Your task to perform on an android device: add a contact in the contacts app Image 0: 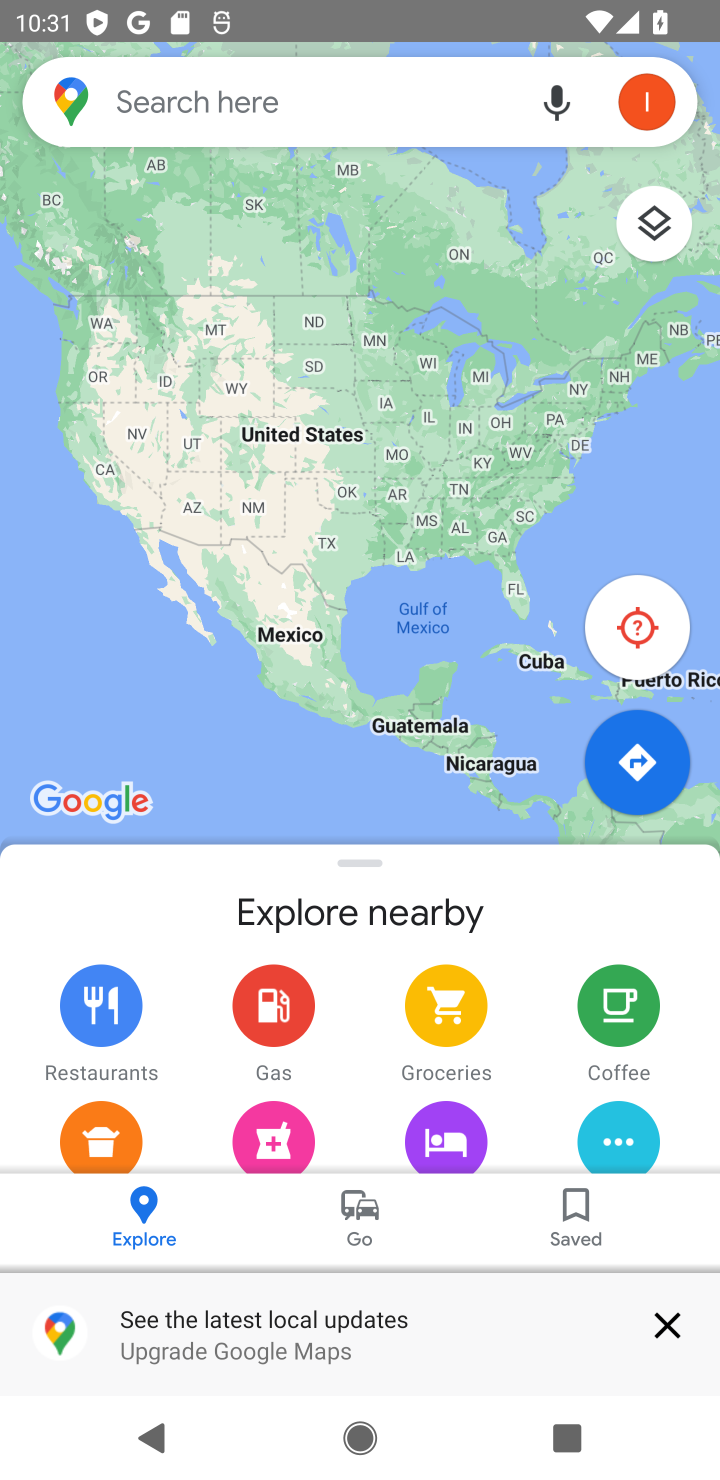
Step 0: press home button
Your task to perform on an android device: add a contact in the contacts app Image 1: 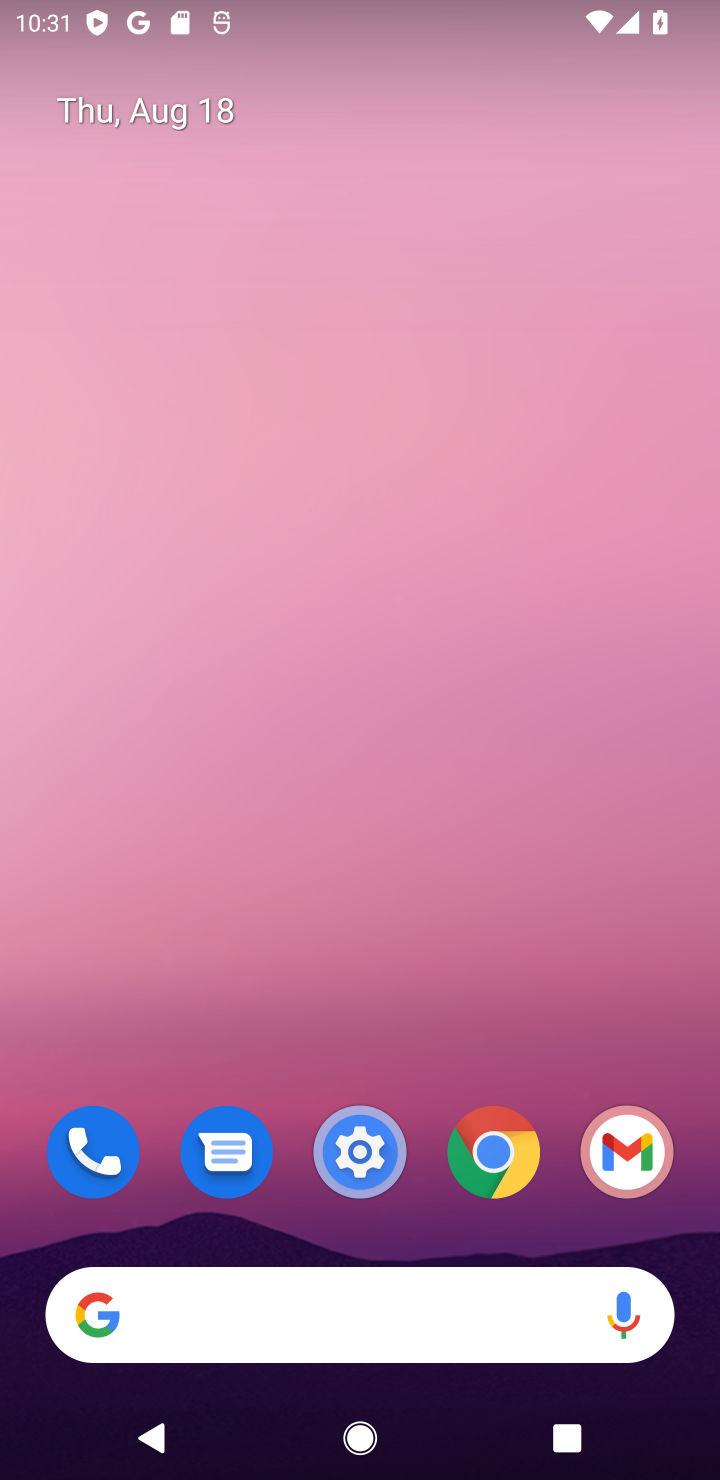
Step 1: drag from (487, 1025) to (490, 3)
Your task to perform on an android device: add a contact in the contacts app Image 2: 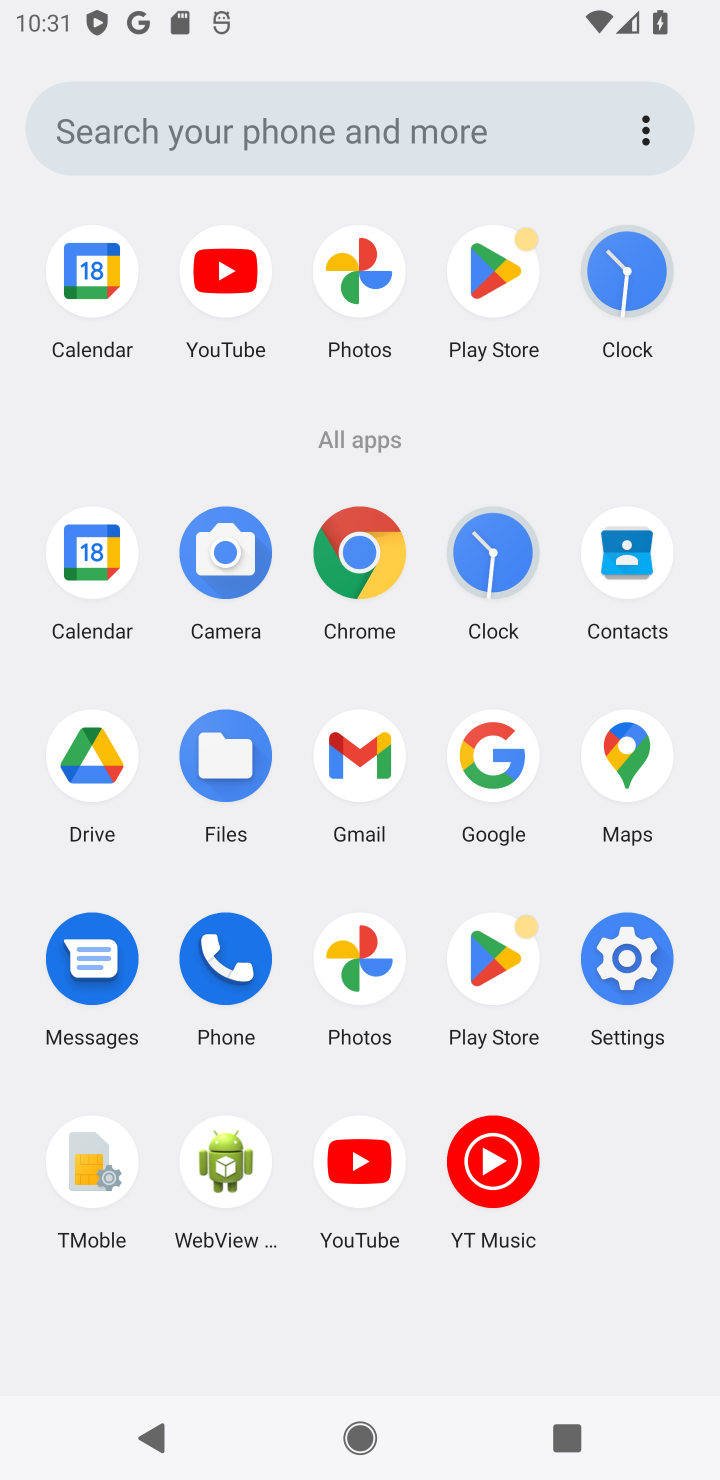
Step 2: click (619, 553)
Your task to perform on an android device: add a contact in the contacts app Image 3: 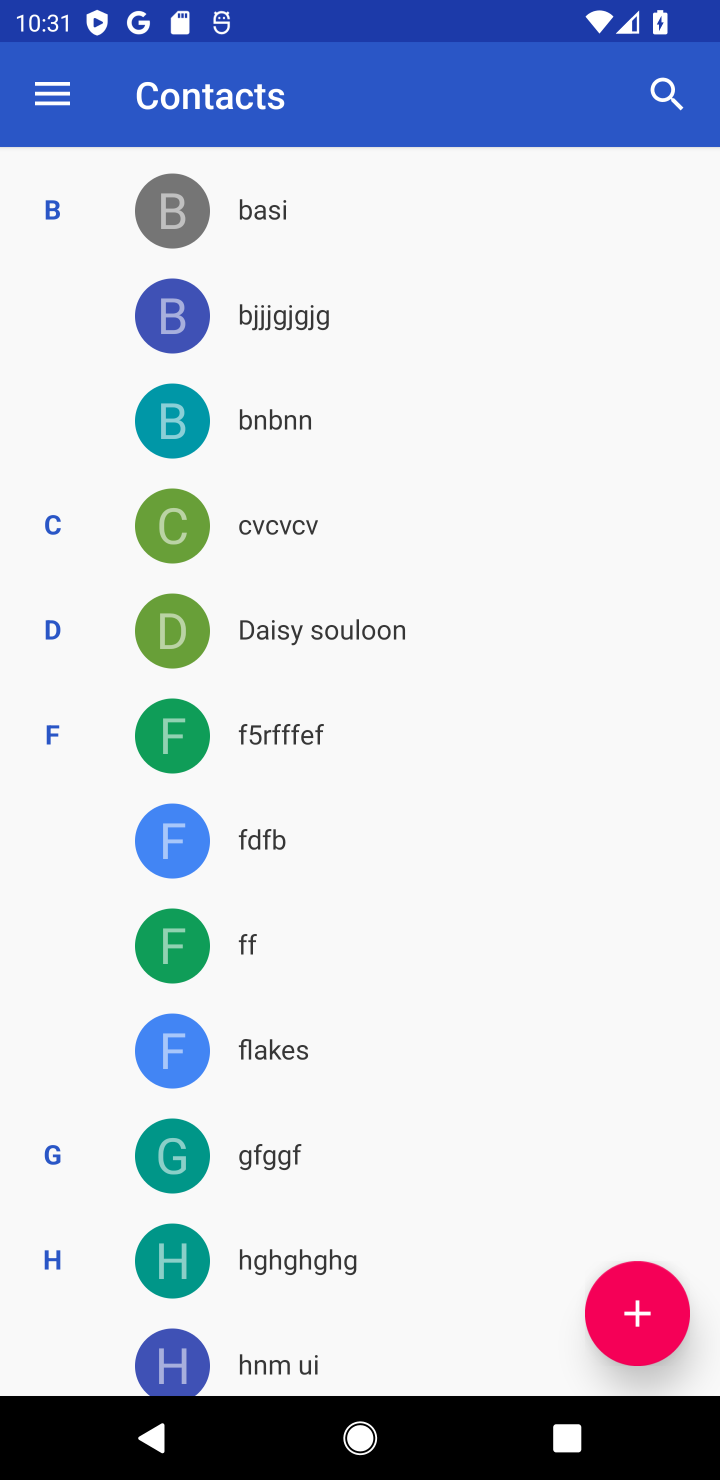
Step 3: click (639, 1304)
Your task to perform on an android device: add a contact in the contacts app Image 4: 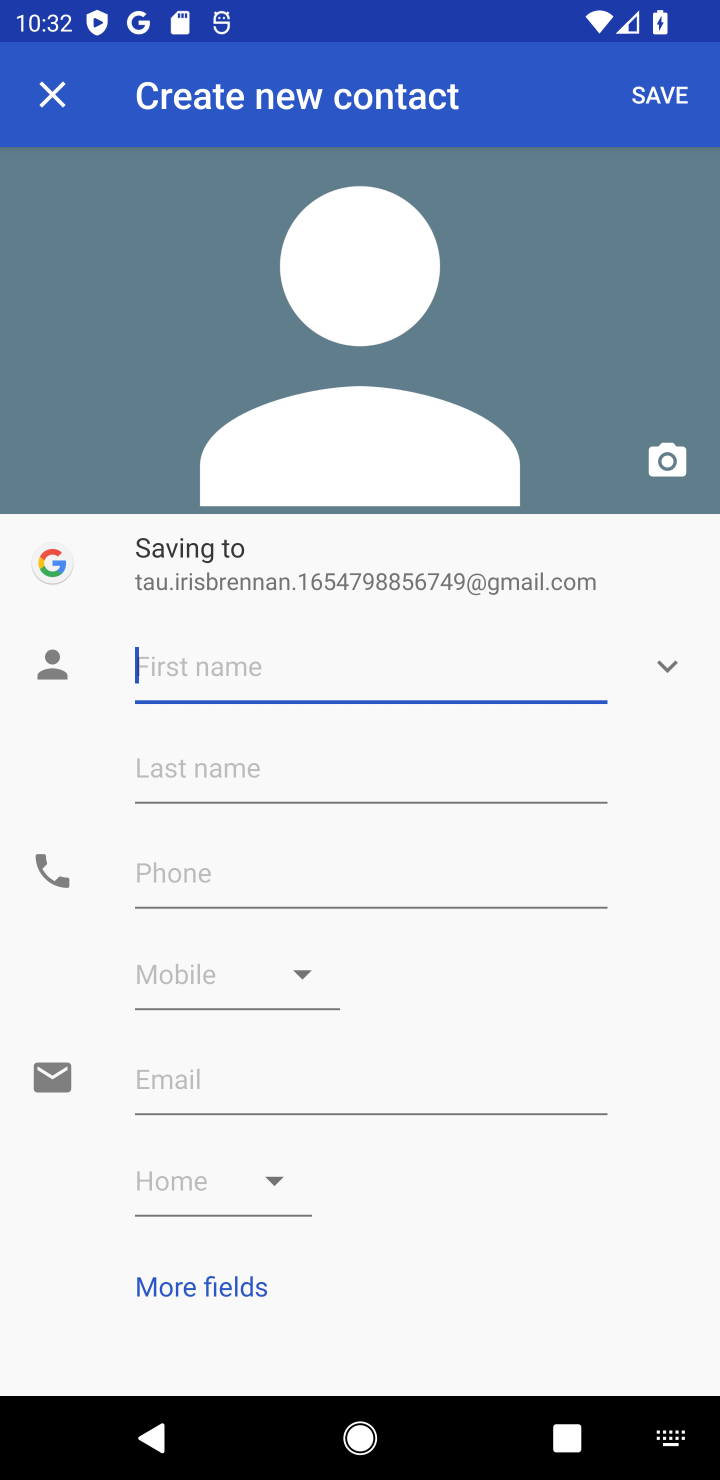
Step 4: type "Aaadidev Mahadev"
Your task to perform on an android device: add a contact in the contacts app Image 5: 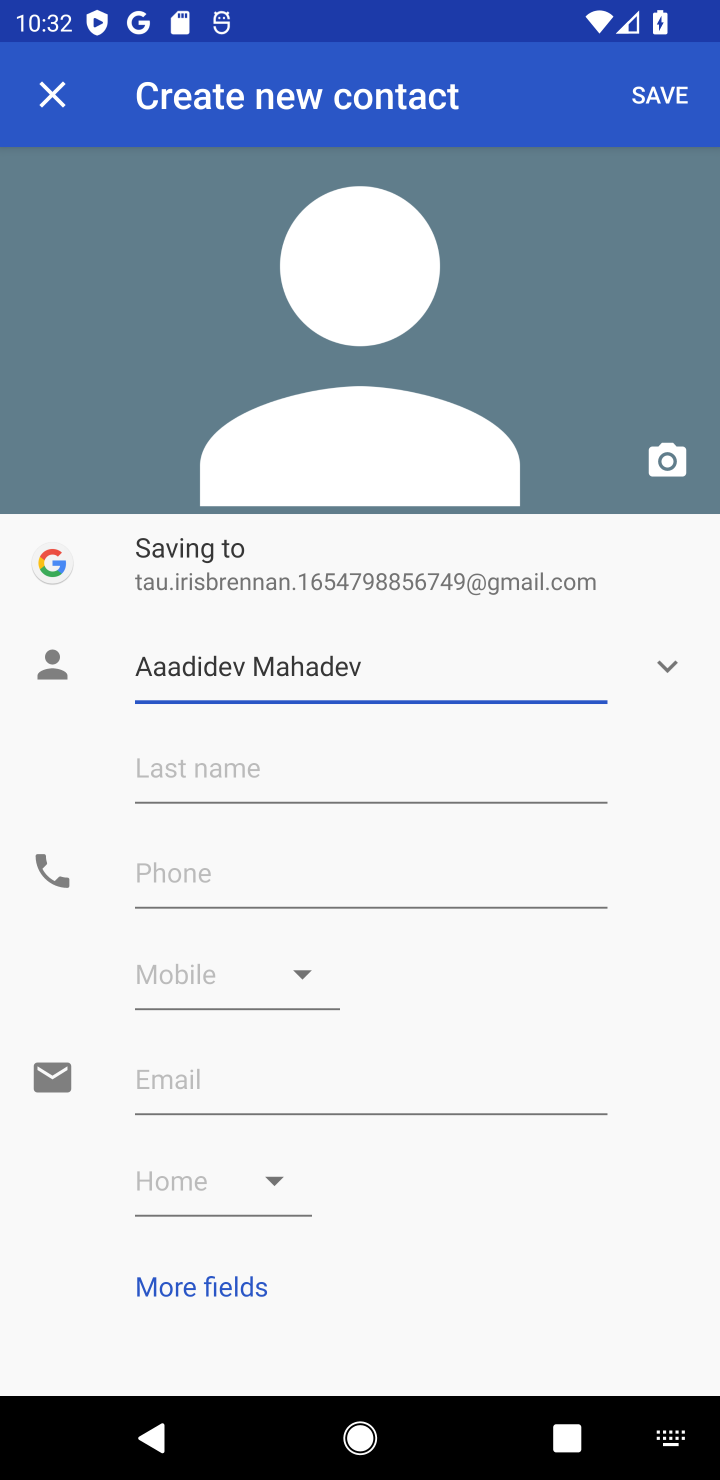
Step 5: click (356, 893)
Your task to perform on an android device: add a contact in the contacts app Image 6: 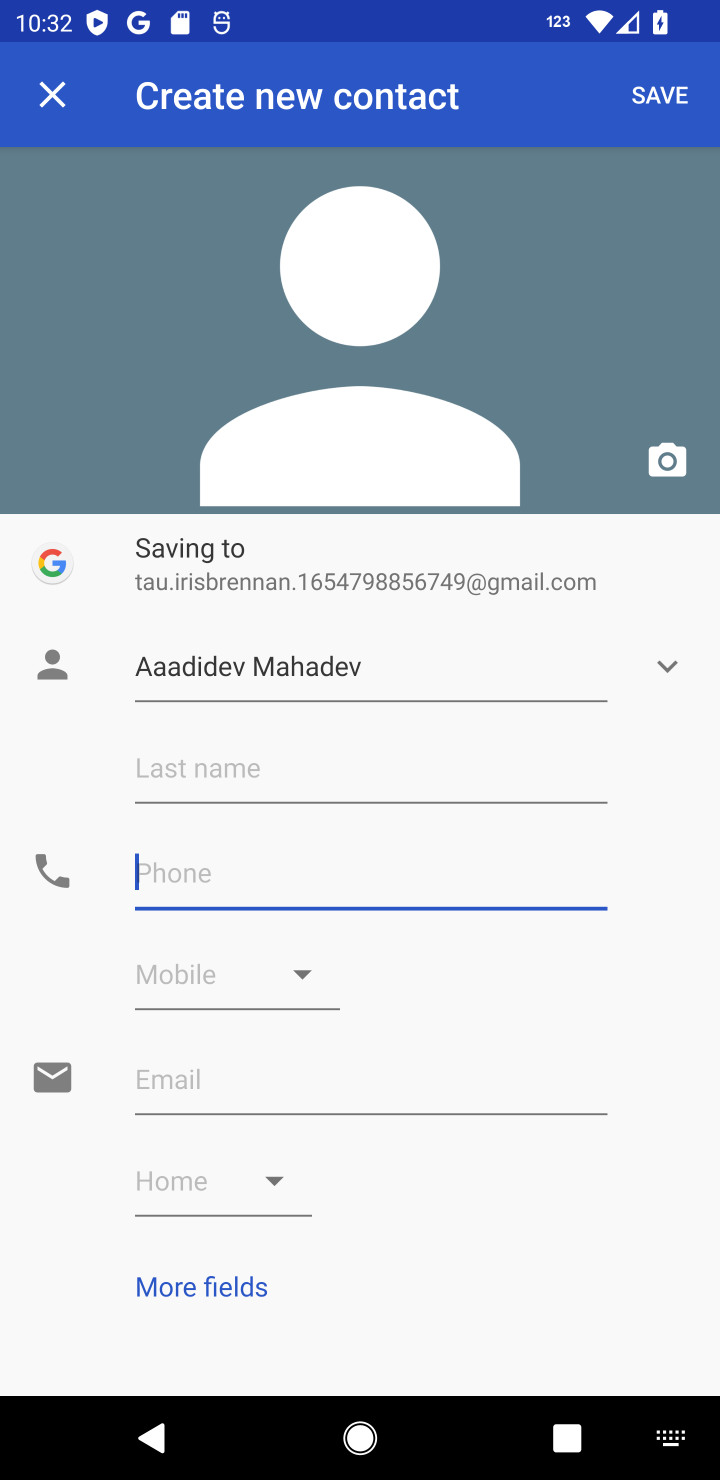
Step 6: type "+919999999999"
Your task to perform on an android device: add a contact in the contacts app Image 7: 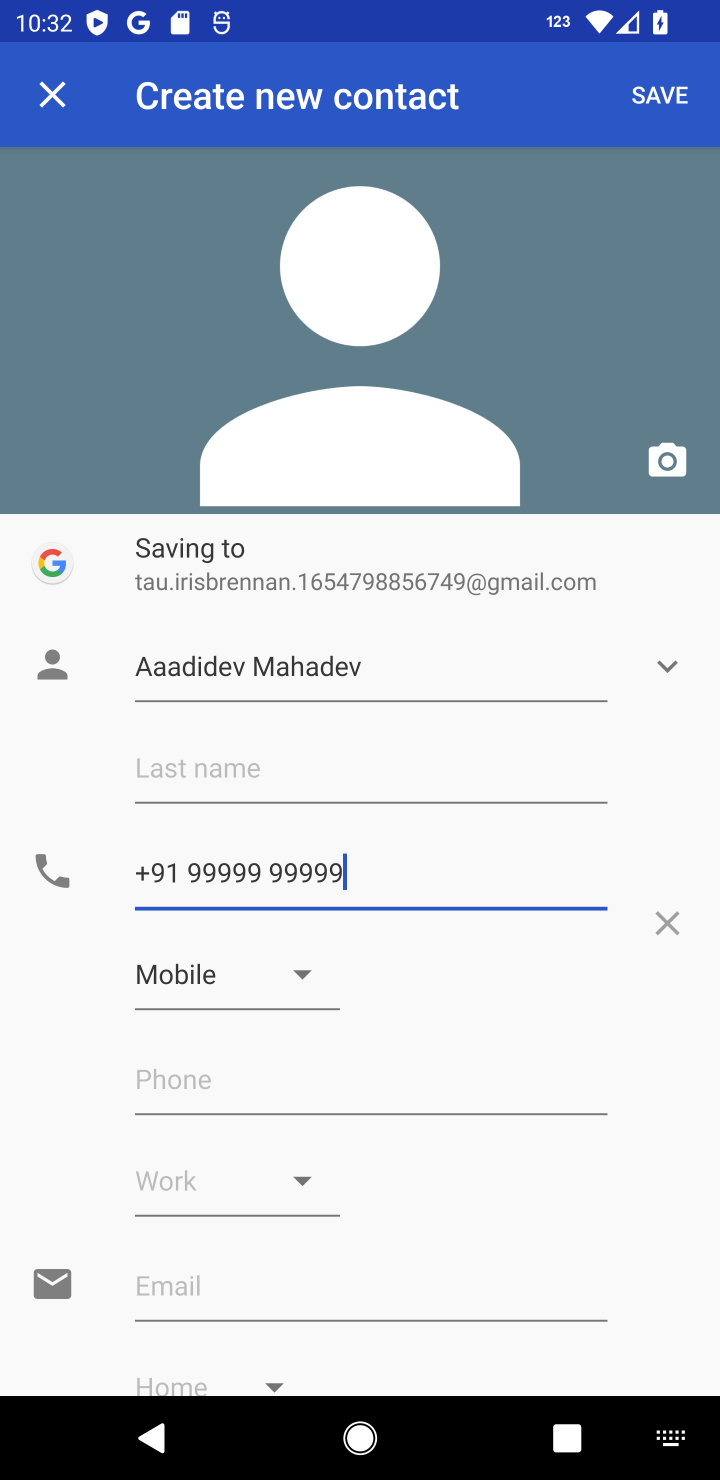
Step 7: click (668, 96)
Your task to perform on an android device: add a contact in the contacts app Image 8: 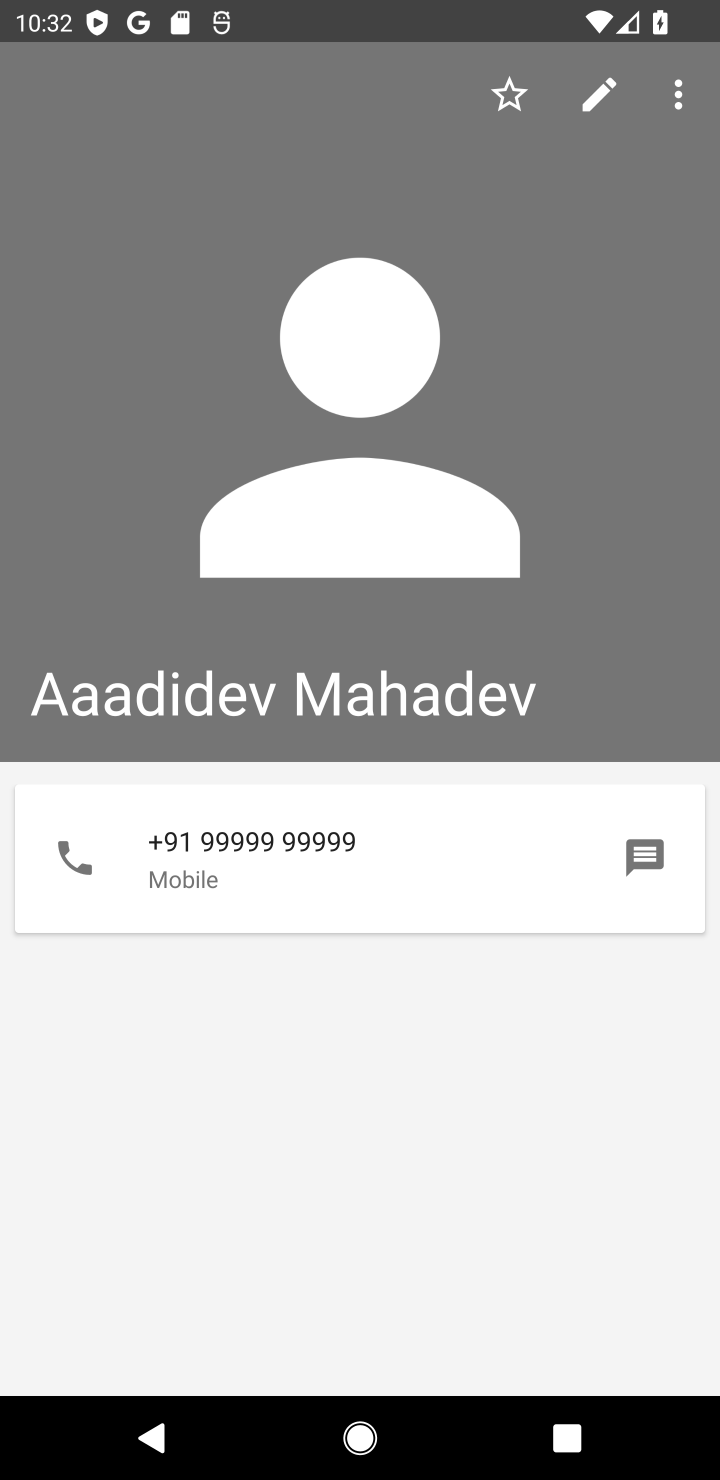
Step 8: task complete